Your task to perform on an android device: Open internet settings Image 0: 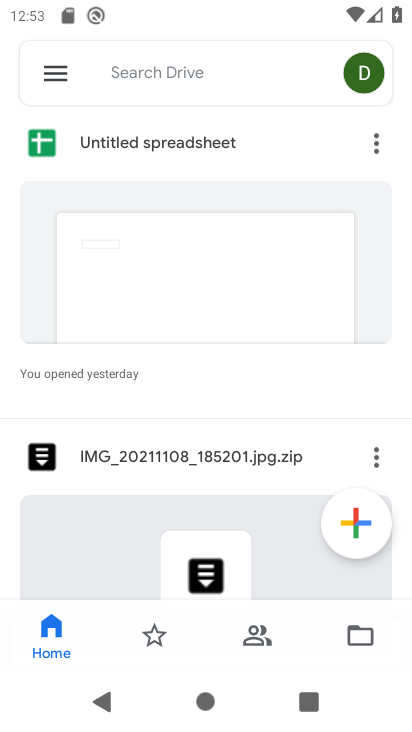
Step 0: press home button
Your task to perform on an android device: Open internet settings Image 1: 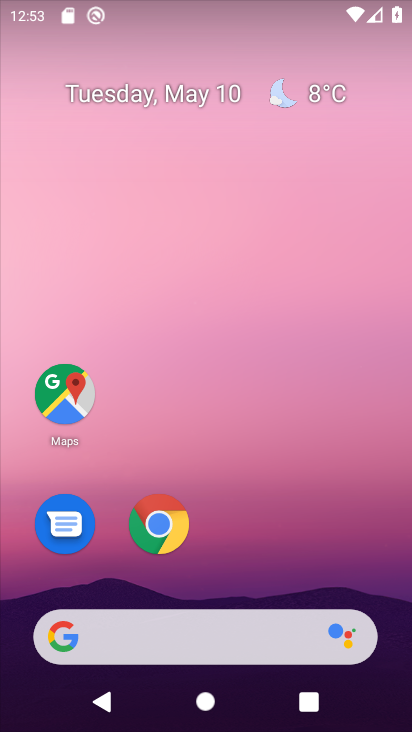
Step 1: drag from (284, 516) to (235, 88)
Your task to perform on an android device: Open internet settings Image 2: 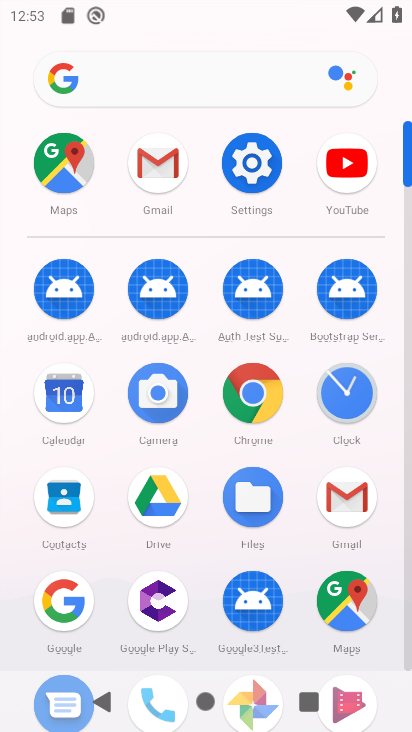
Step 2: click (258, 164)
Your task to perform on an android device: Open internet settings Image 3: 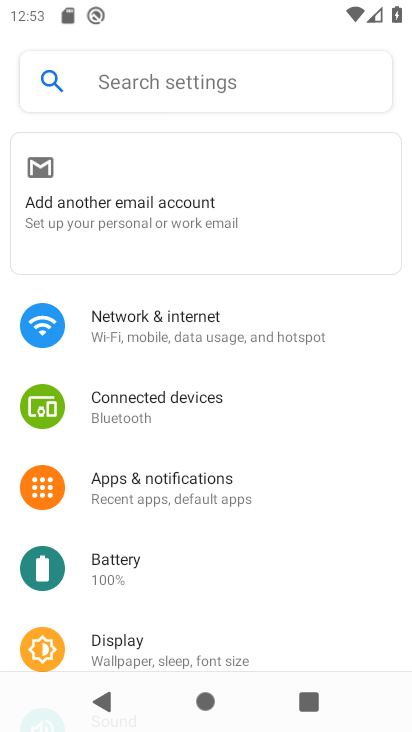
Step 3: click (235, 326)
Your task to perform on an android device: Open internet settings Image 4: 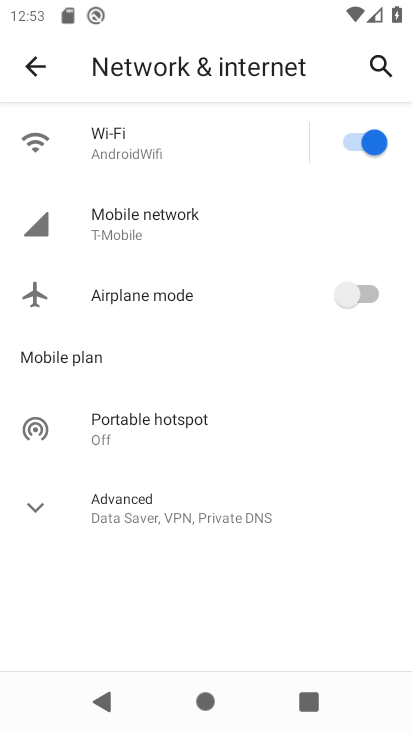
Step 4: task complete